Your task to perform on an android device: add a contact Image 0: 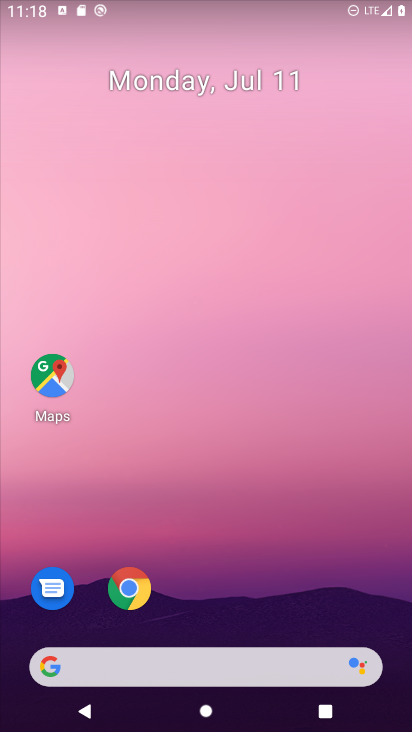
Step 0: drag from (395, 668) to (238, 25)
Your task to perform on an android device: add a contact Image 1: 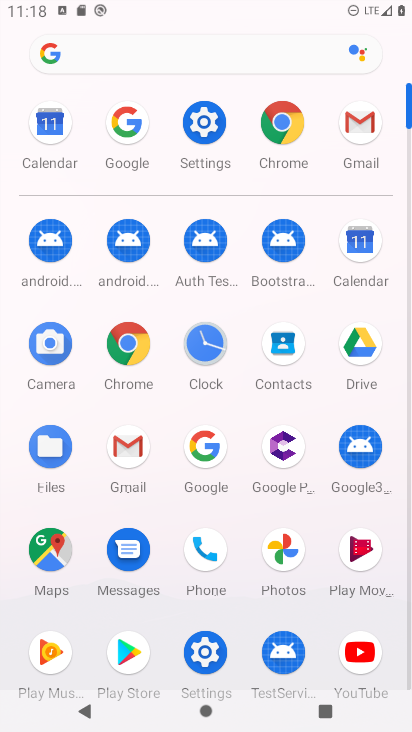
Step 1: click (279, 363)
Your task to perform on an android device: add a contact Image 2: 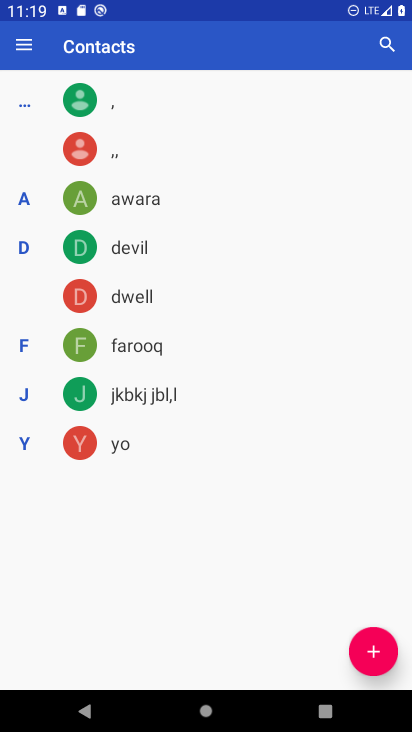
Step 2: click (371, 670)
Your task to perform on an android device: add a contact Image 3: 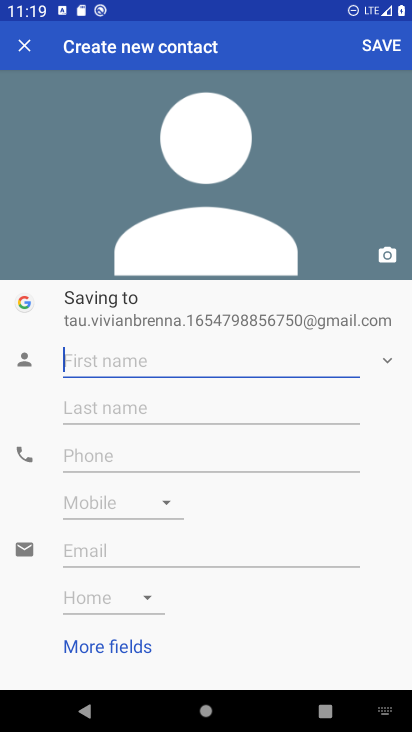
Step 3: type "girish"
Your task to perform on an android device: add a contact Image 4: 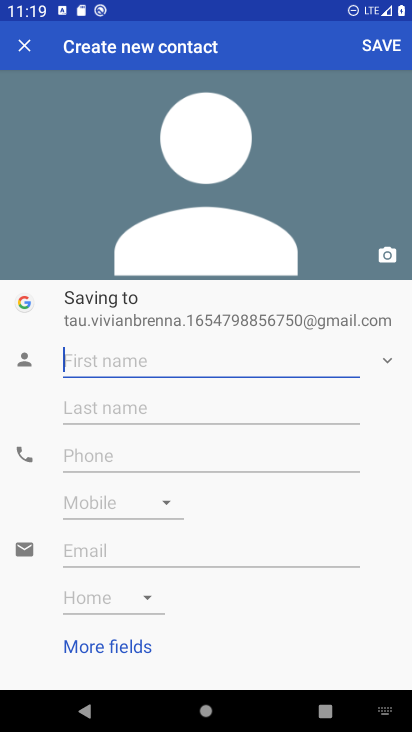
Step 4: click (365, 42)
Your task to perform on an android device: add a contact Image 5: 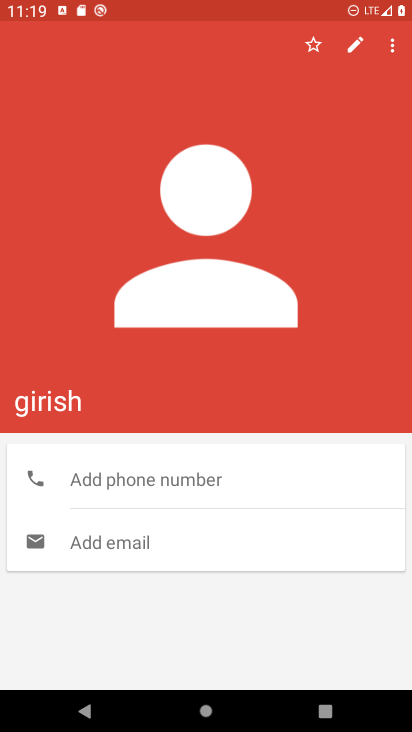
Step 5: task complete